Your task to perform on an android device: Open Google Maps and go to "Timeline" Image 0: 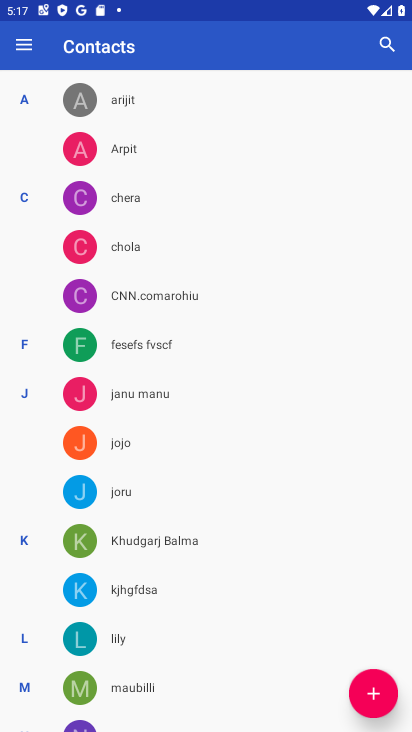
Step 0: press home button
Your task to perform on an android device: Open Google Maps and go to "Timeline" Image 1: 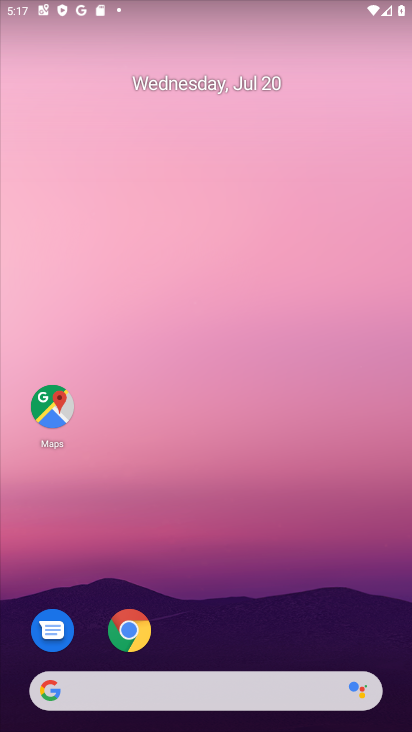
Step 1: click (52, 405)
Your task to perform on an android device: Open Google Maps and go to "Timeline" Image 2: 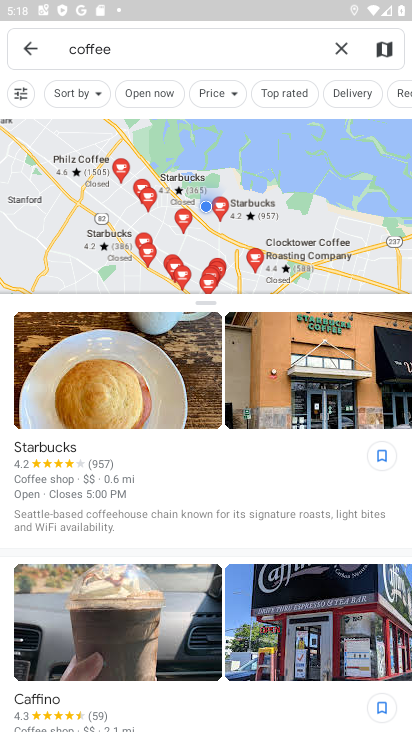
Step 2: click (337, 46)
Your task to perform on an android device: Open Google Maps and go to "Timeline" Image 3: 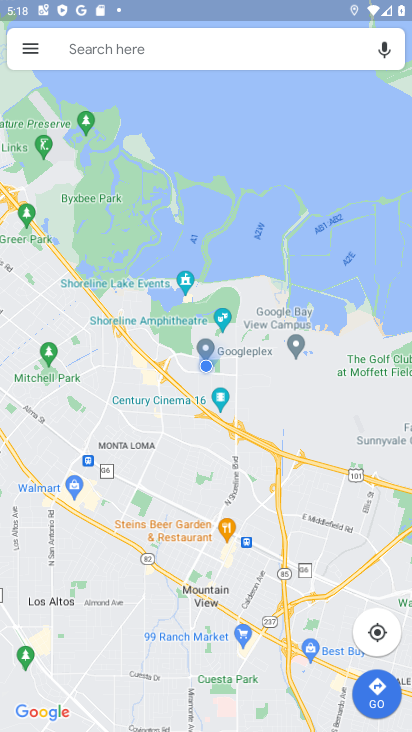
Step 3: click (30, 45)
Your task to perform on an android device: Open Google Maps and go to "Timeline" Image 4: 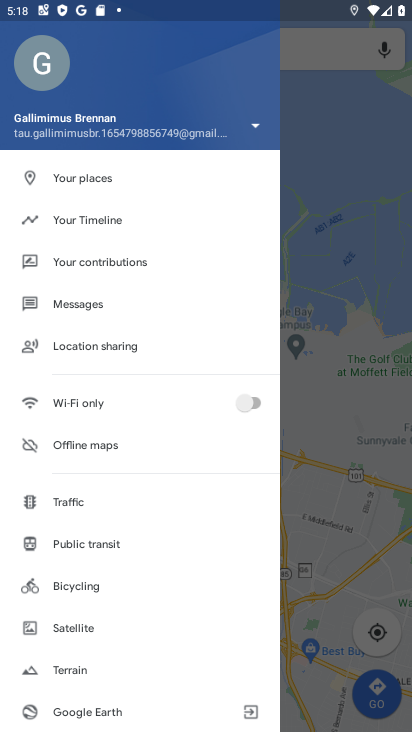
Step 4: click (87, 218)
Your task to perform on an android device: Open Google Maps and go to "Timeline" Image 5: 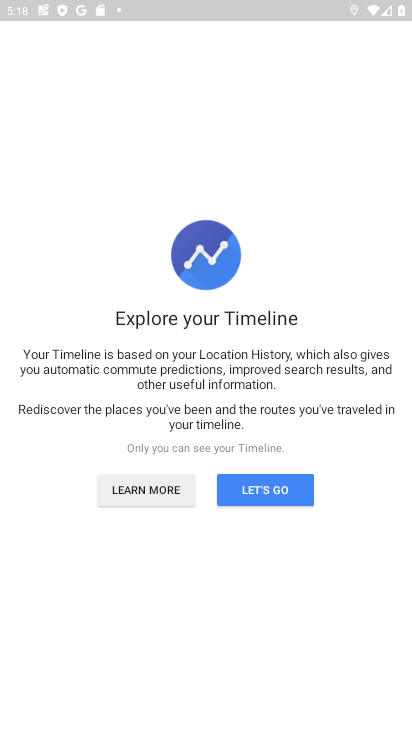
Step 5: click (249, 492)
Your task to perform on an android device: Open Google Maps and go to "Timeline" Image 6: 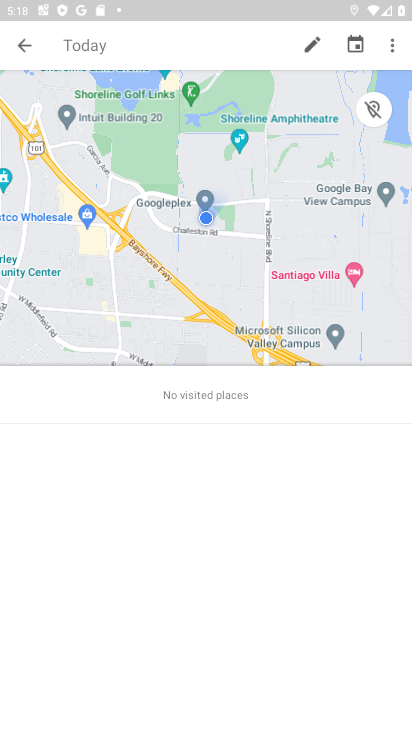
Step 6: task complete